Your task to perform on an android device: Search for Mexican restaurants on Maps Image 0: 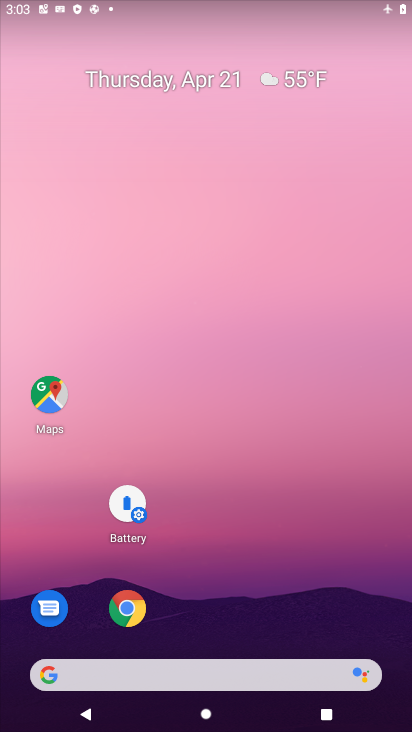
Step 0: drag from (327, 293) to (296, 100)
Your task to perform on an android device: Search for Mexican restaurants on Maps Image 1: 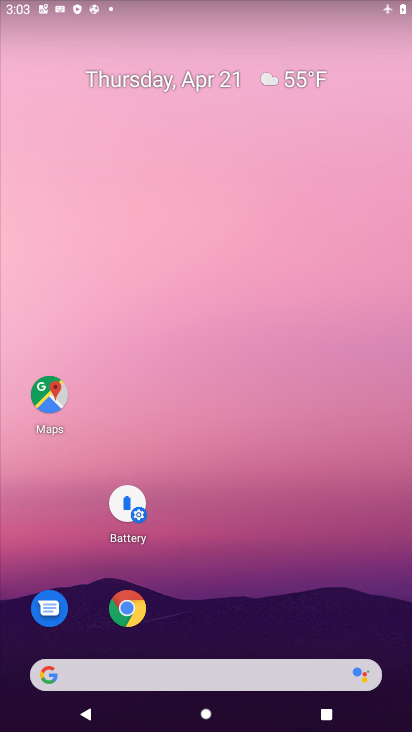
Step 1: drag from (308, 491) to (371, 8)
Your task to perform on an android device: Search for Mexican restaurants on Maps Image 2: 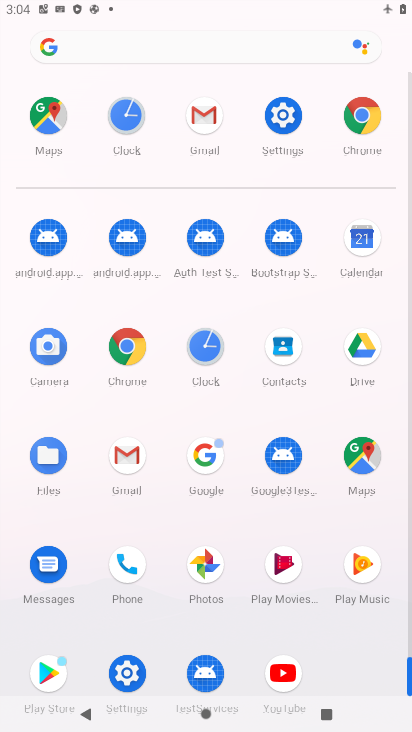
Step 2: click (28, 120)
Your task to perform on an android device: Search for Mexican restaurants on Maps Image 3: 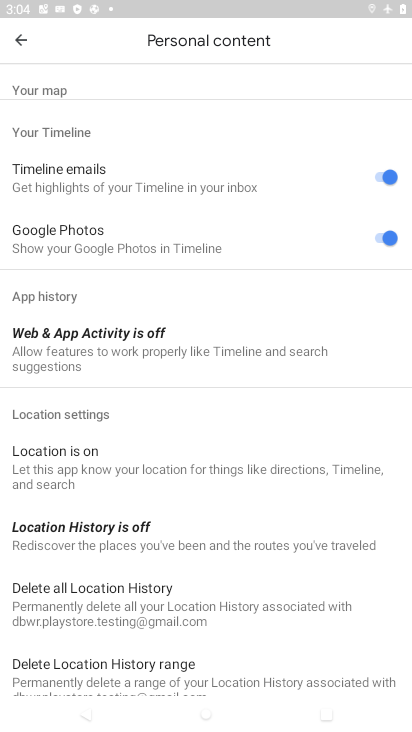
Step 3: click (17, 41)
Your task to perform on an android device: Search for Mexican restaurants on Maps Image 4: 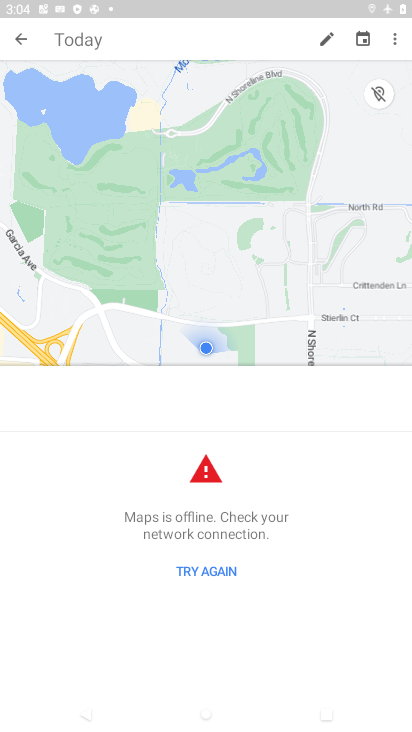
Step 4: click (33, 44)
Your task to perform on an android device: Search for Mexican restaurants on Maps Image 5: 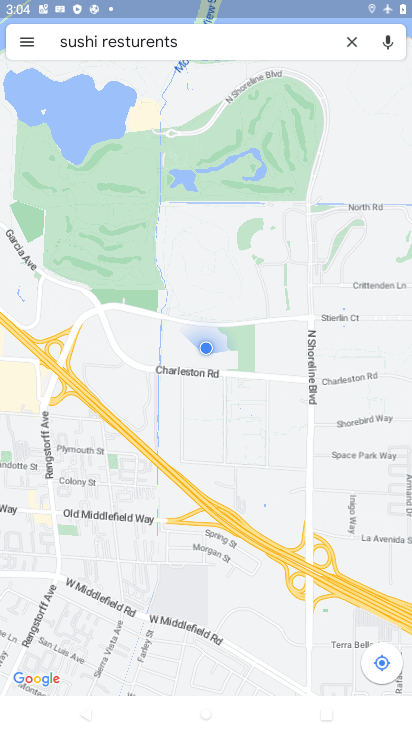
Step 5: click (355, 43)
Your task to perform on an android device: Search for Mexican restaurants on Maps Image 6: 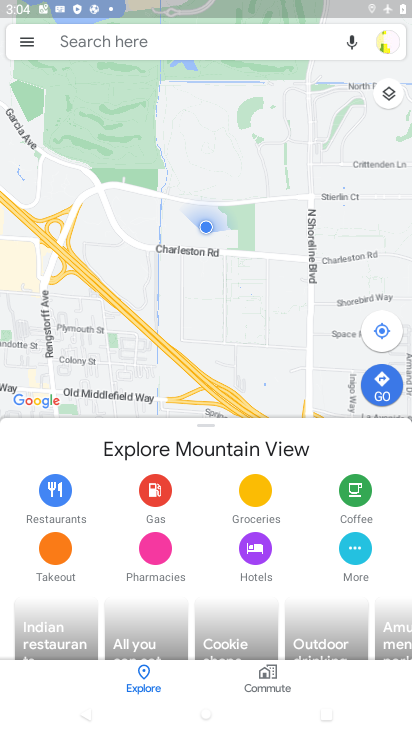
Step 6: click (288, 44)
Your task to perform on an android device: Search for Mexican restaurants on Maps Image 7: 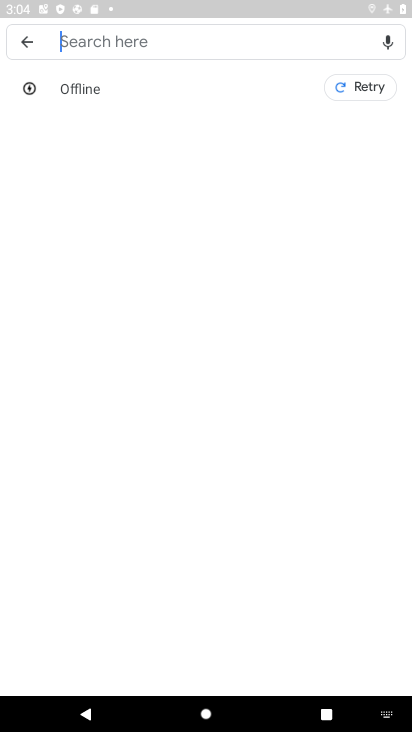
Step 7: type "mexican resturents"
Your task to perform on an android device: Search for Mexican restaurants on Maps Image 8: 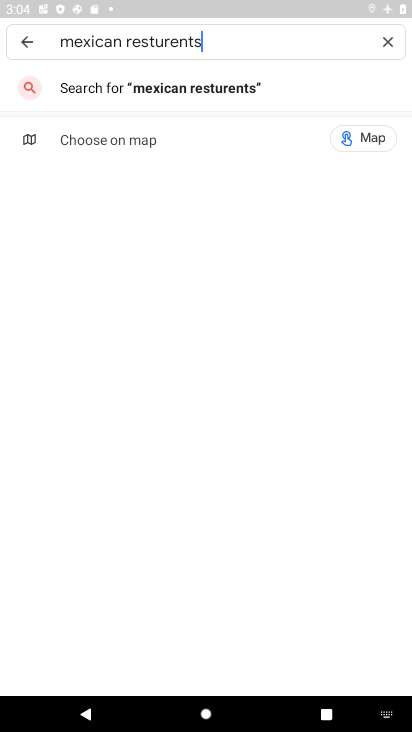
Step 8: click (161, 90)
Your task to perform on an android device: Search for Mexican restaurants on Maps Image 9: 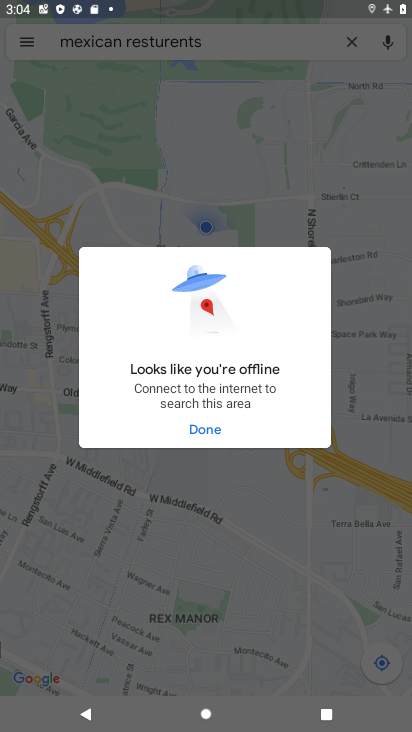
Step 9: task complete